Your task to perform on an android device: Search for vegetarian restaurants on Maps Image 0: 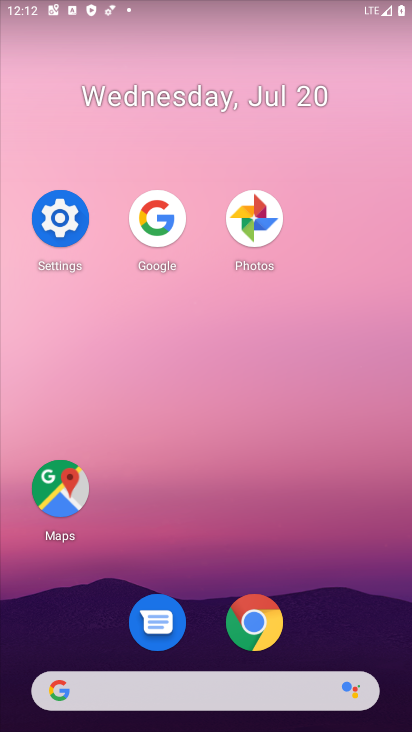
Step 0: click (62, 494)
Your task to perform on an android device: Search for vegetarian restaurants on Maps Image 1: 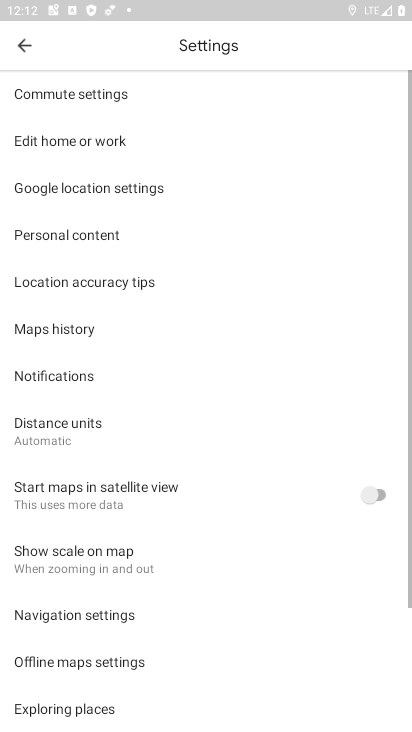
Step 1: click (36, 60)
Your task to perform on an android device: Search for vegetarian restaurants on Maps Image 2: 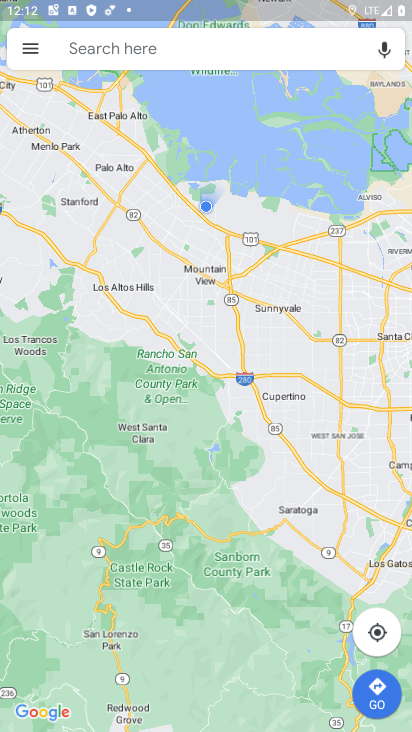
Step 2: click (271, 47)
Your task to perform on an android device: Search for vegetarian restaurants on Maps Image 3: 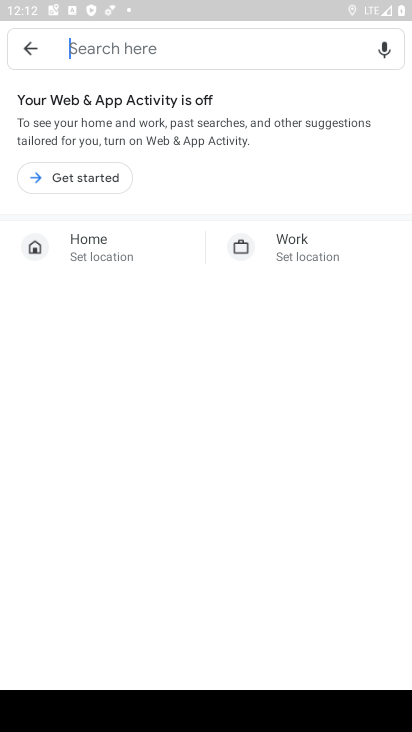
Step 3: type "vegetarian restaurants"
Your task to perform on an android device: Search for vegetarian restaurants on Maps Image 4: 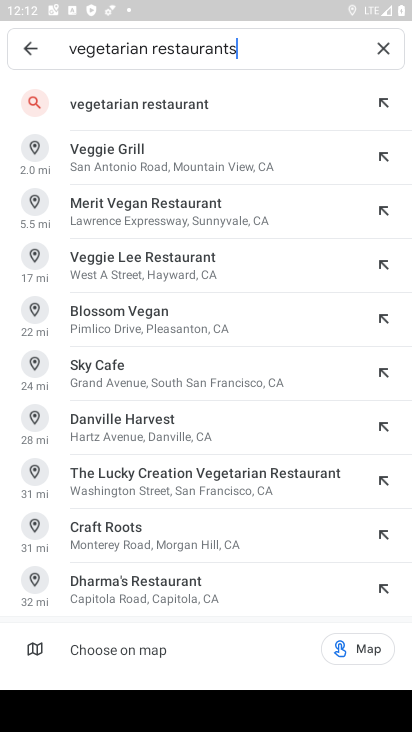
Step 4: click (211, 106)
Your task to perform on an android device: Search for vegetarian restaurants on Maps Image 5: 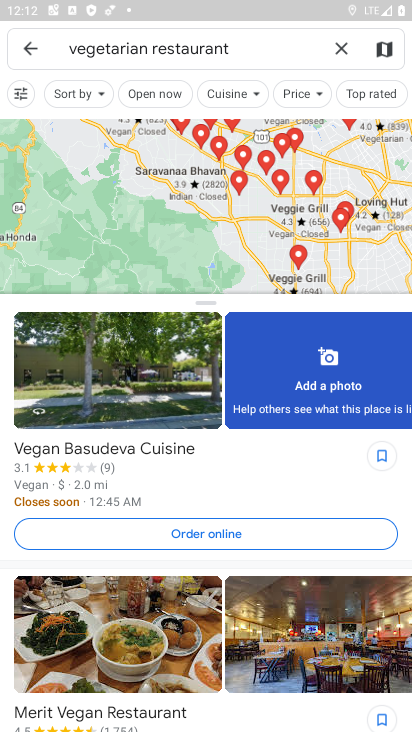
Step 5: task complete